Your task to perform on an android device: Toggle the flashlight Image 0: 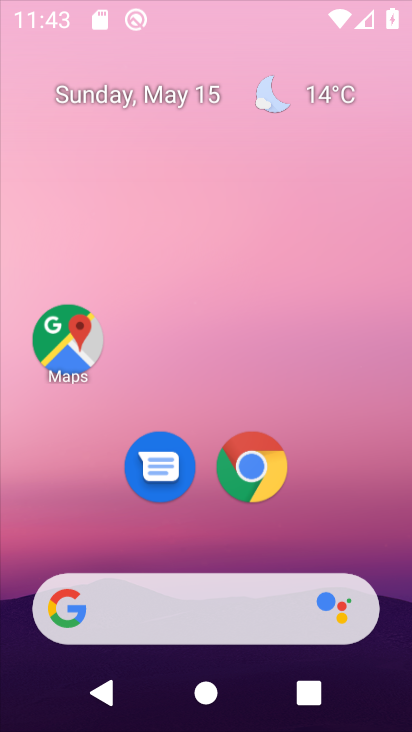
Step 0: press home button
Your task to perform on an android device: Toggle the flashlight Image 1: 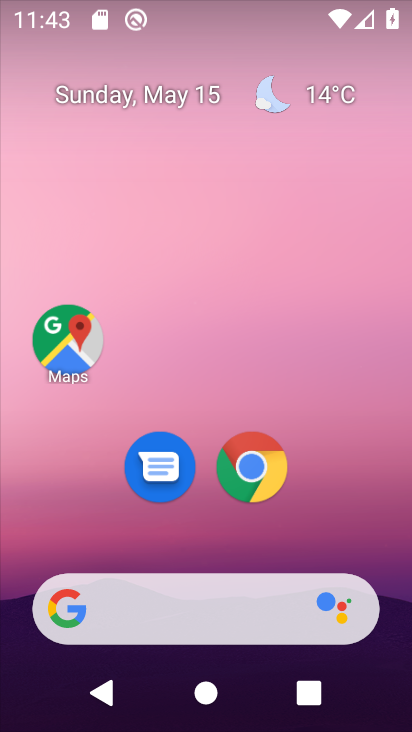
Step 1: drag from (205, 547) to (189, 6)
Your task to perform on an android device: Toggle the flashlight Image 2: 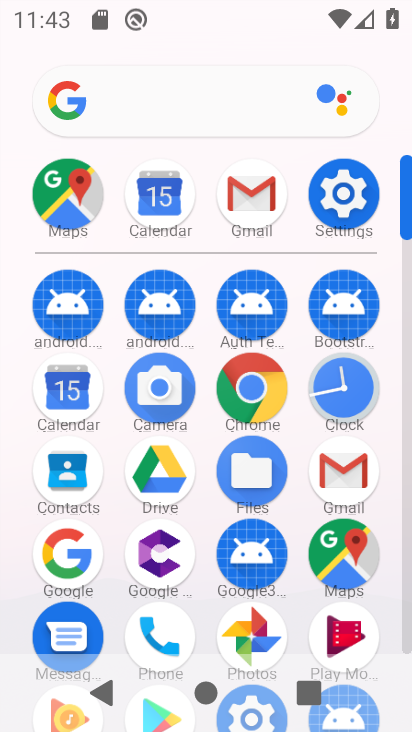
Step 2: click (342, 186)
Your task to perform on an android device: Toggle the flashlight Image 3: 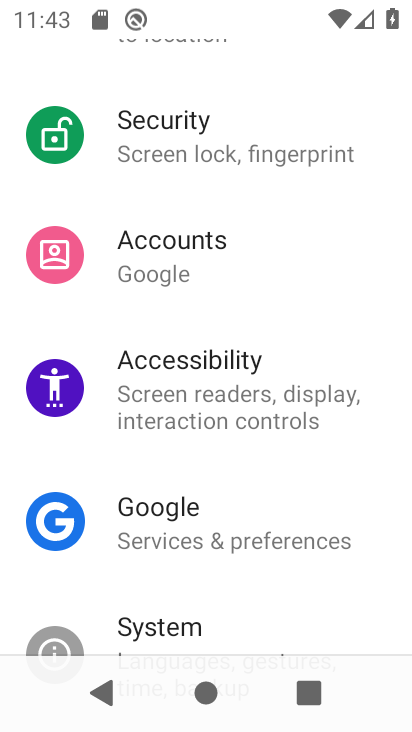
Step 3: drag from (195, 98) to (221, 653)
Your task to perform on an android device: Toggle the flashlight Image 4: 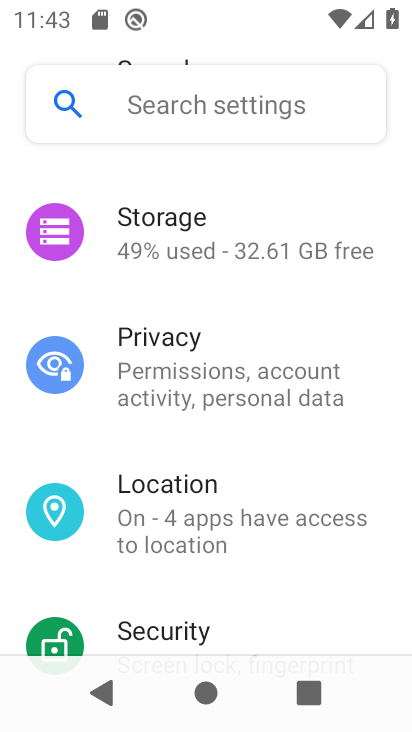
Step 4: click (164, 87)
Your task to perform on an android device: Toggle the flashlight Image 5: 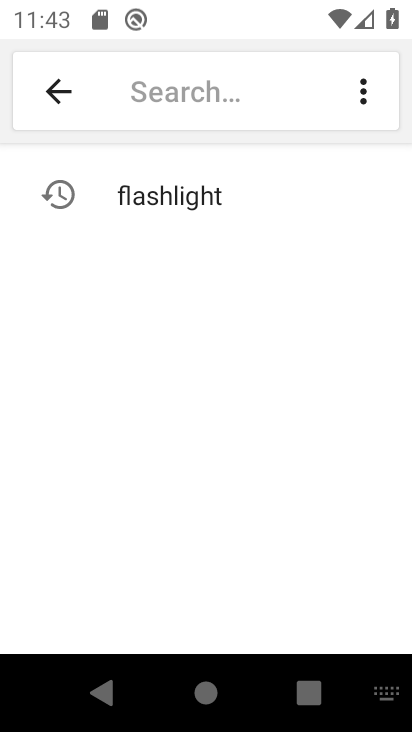
Step 5: click (221, 188)
Your task to perform on an android device: Toggle the flashlight Image 6: 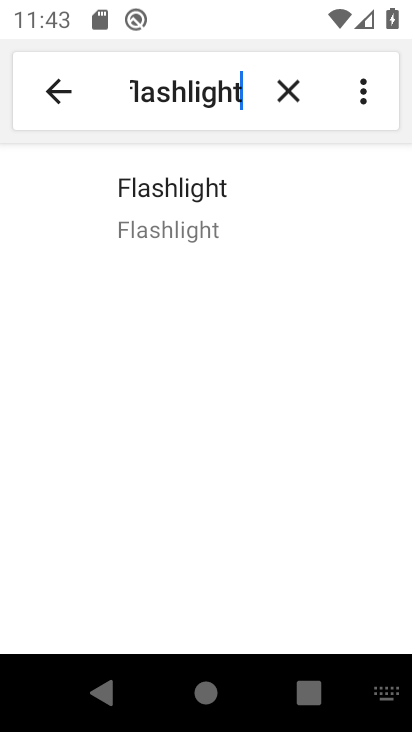
Step 6: click (238, 198)
Your task to perform on an android device: Toggle the flashlight Image 7: 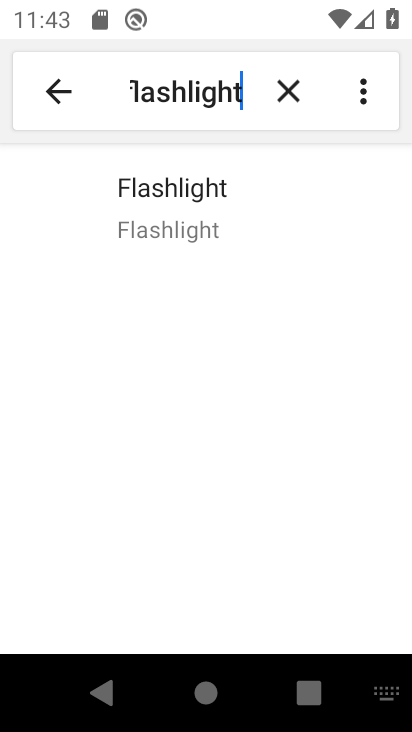
Step 7: task complete